Your task to perform on an android device: all mails in gmail Image 0: 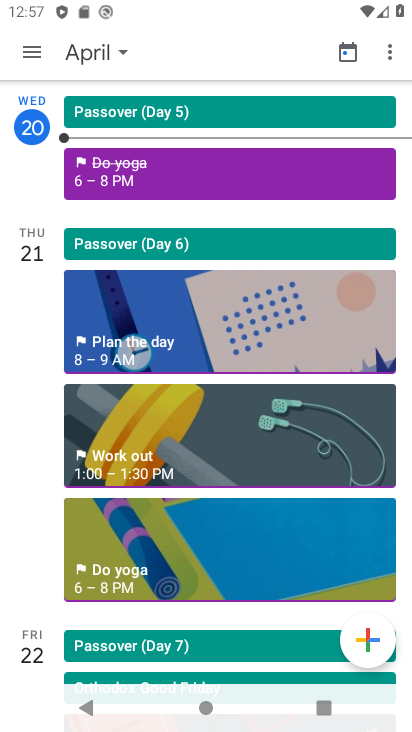
Step 0: press home button
Your task to perform on an android device: all mails in gmail Image 1: 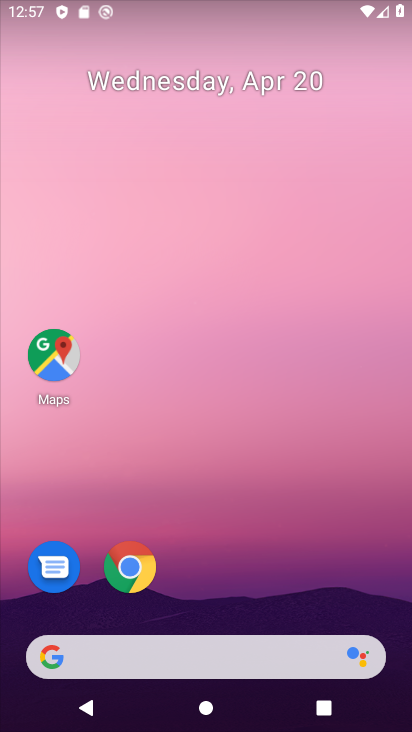
Step 1: drag from (50, 576) to (252, 153)
Your task to perform on an android device: all mails in gmail Image 2: 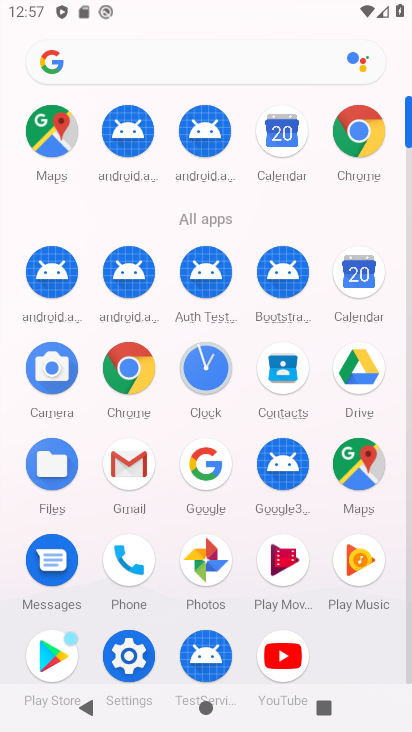
Step 2: click (133, 477)
Your task to perform on an android device: all mails in gmail Image 3: 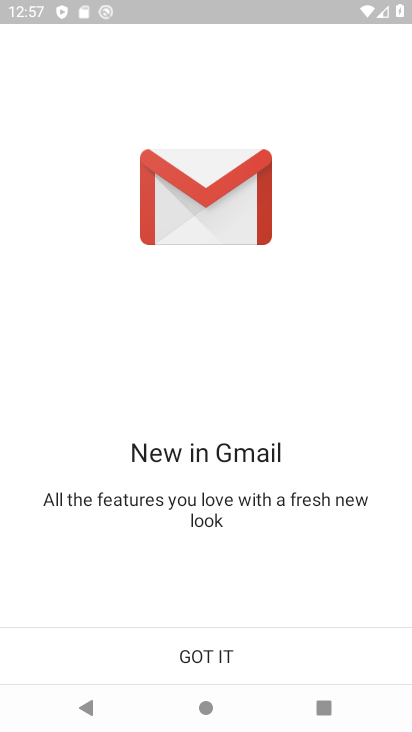
Step 3: click (209, 648)
Your task to perform on an android device: all mails in gmail Image 4: 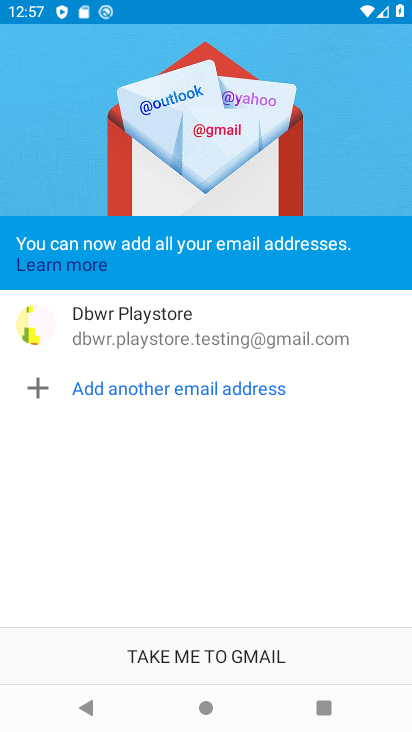
Step 4: click (221, 679)
Your task to perform on an android device: all mails in gmail Image 5: 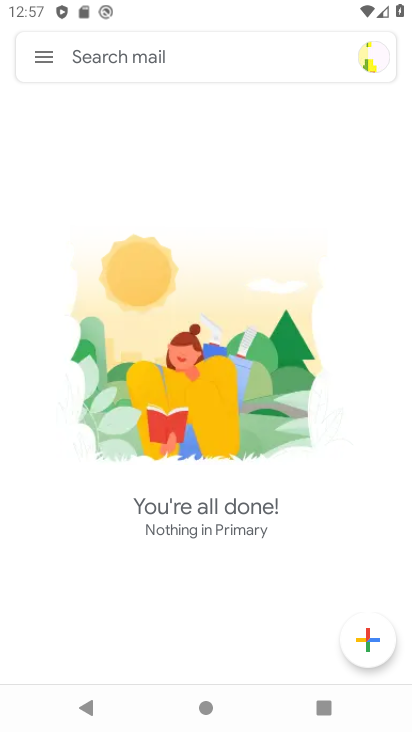
Step 5: click (50, 58)
Your task to perform on an android device: all mails in gmail Image 6: 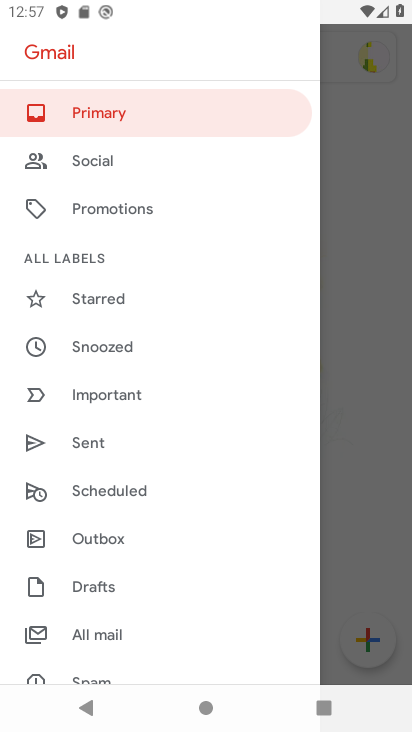
Step 6: task complete